Your task to perform on an android device: change the clock display to digital Image 0: 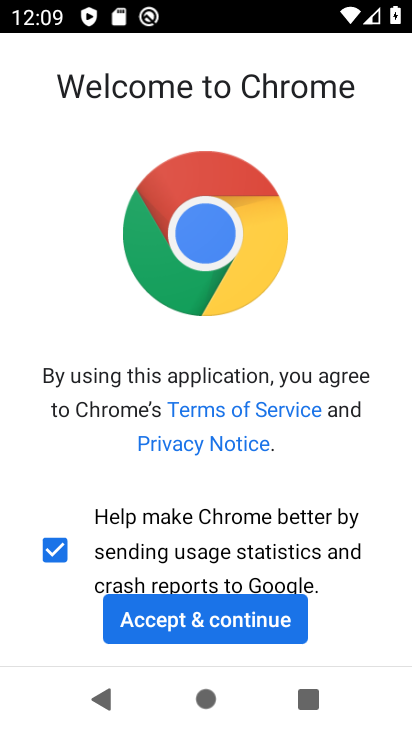
Step 0: press home button
Your task to perform on an android device: change the clock display to digital Image 1: 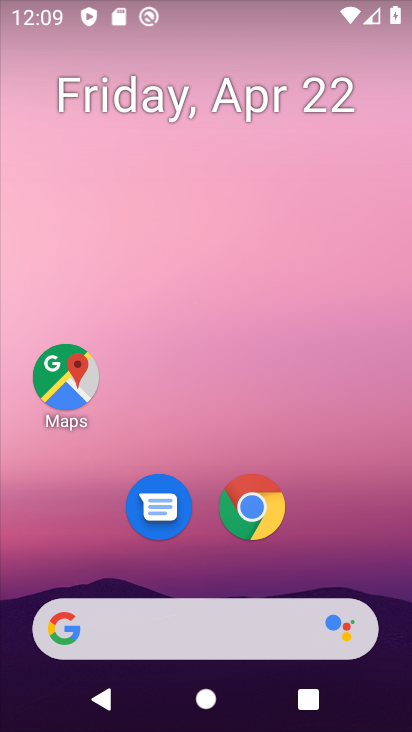
Step 1: drag from (301, 383) to (197, 201)
Your task to perform on an android device: change the clock display to digital Image 2: 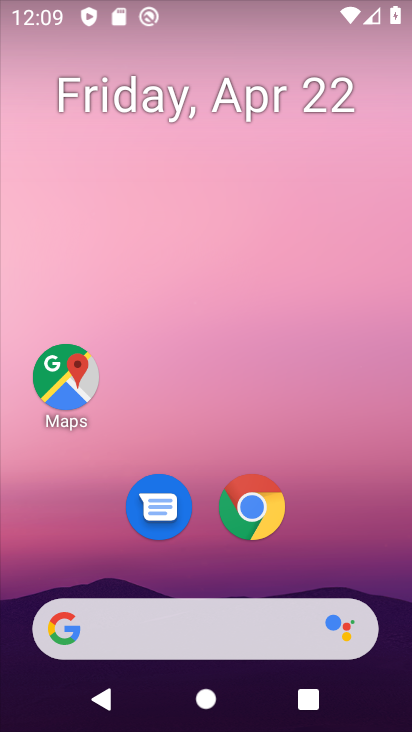
Step 2: drag from (347, 528) to (311, 77)
Your task to perform on an android device: change the clock display to digital Image 3: 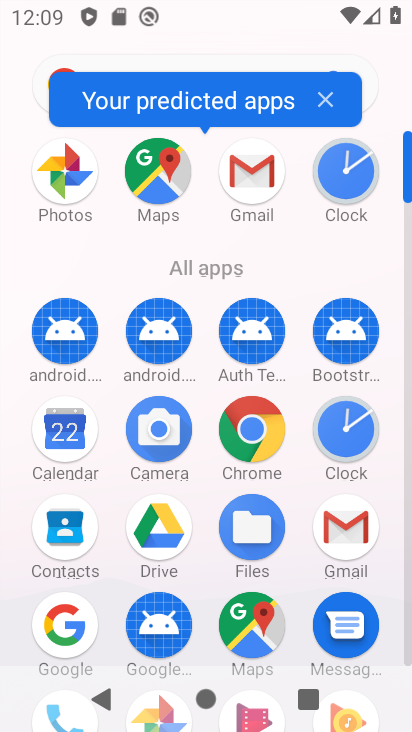
Step 3: click (342, 164)
Your task to perform on an android device: change the clock display to digital Image 4: 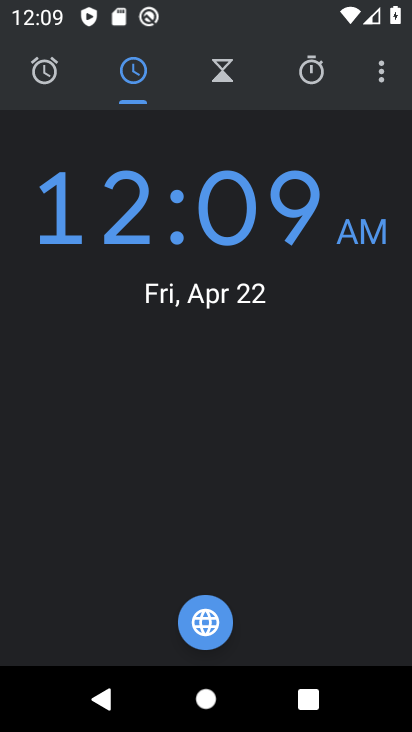
Step 4: click (380, 72)
Your task to perform on an android device: change the clock display to digital Image 5: 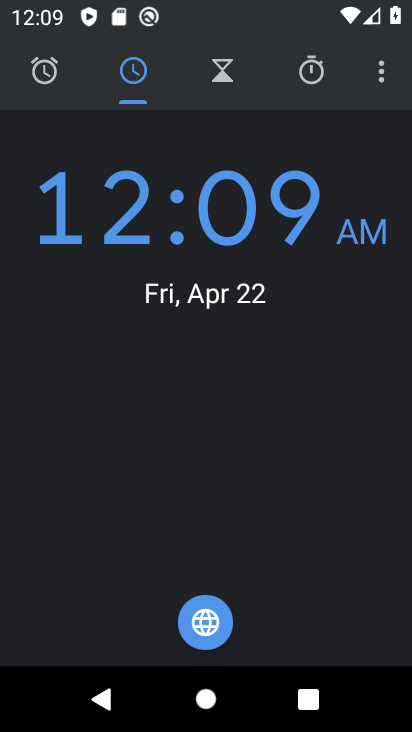
Step 5: click (377, 67)
Your task to perform on an android device: change the clock display to digital Image 6: 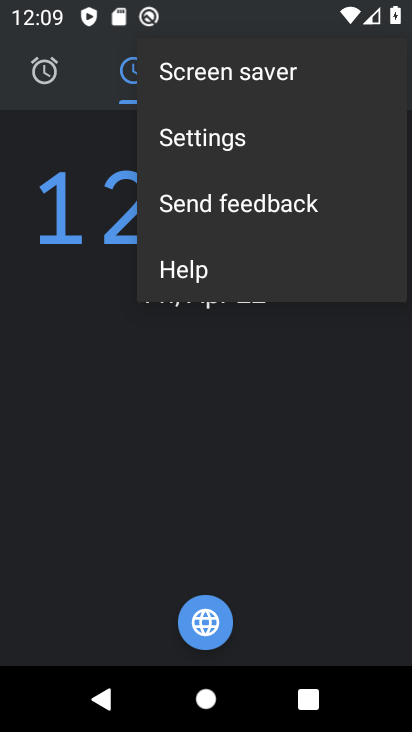
Step 6: click (199, 148)
Your task to perform on an android device: change the clock display to digital Image 7: 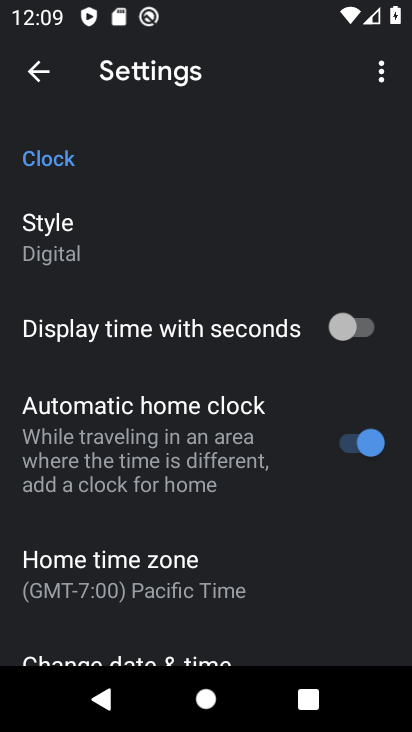
Step 7: click (53, 240)
Your task to perform on an android device: change the clock display to digital Image 8: 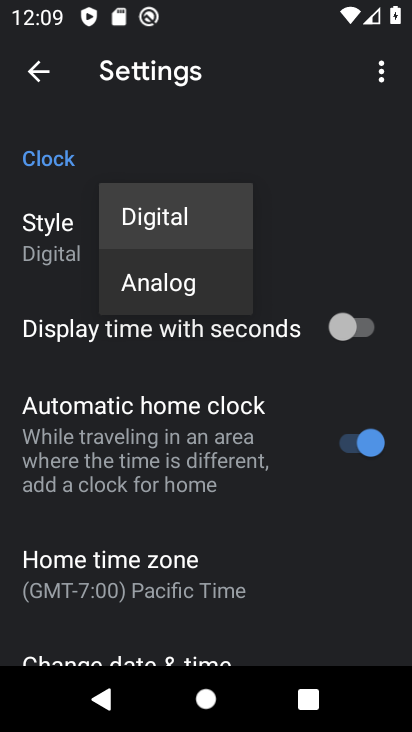
Step 8: task complete